Your task to perform on an android device: see creations saved in the google photos Image 0: 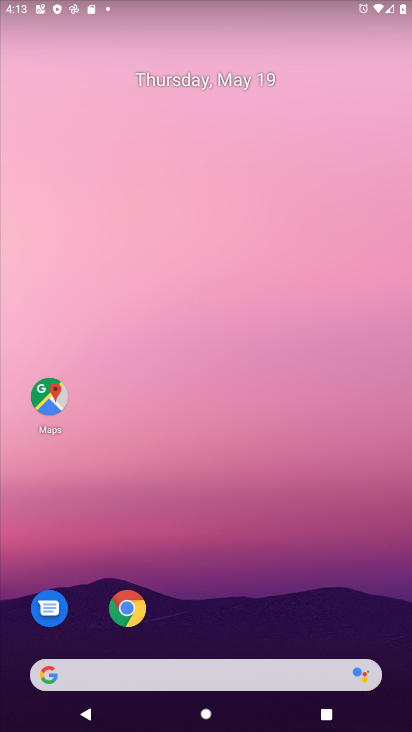
Step 0: drag from (238, 601) to (257, 95)
Your task to perform on an android device: see creations saved in the google photos Image 1: 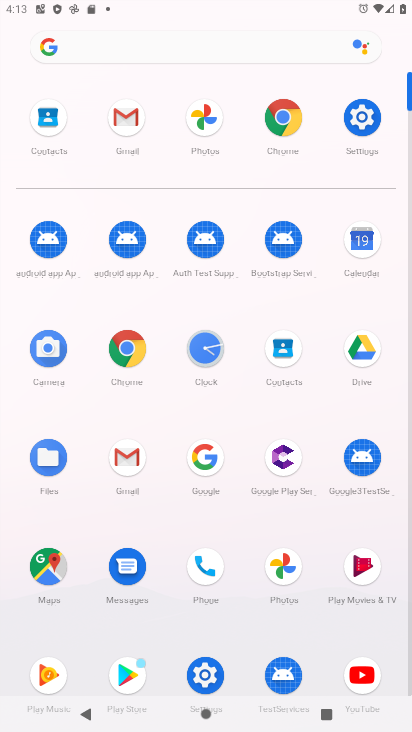
Step 1: click (210, 129)
Your task to perform on an android device: see creations saved in the google photos Image 2: 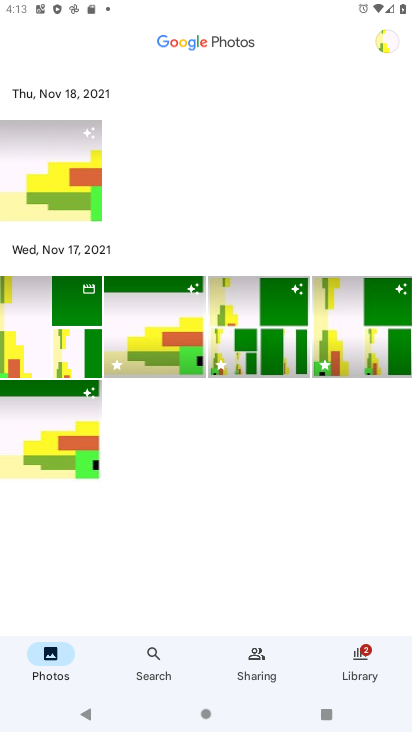
Step 2: click (371, 645)
Your task to perform on an android device: see creations saved in the google photos Image 3: 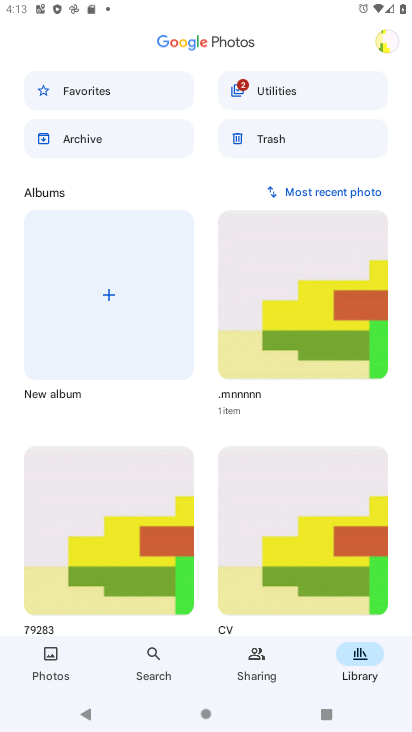
Step 3: click (105, 135)
Your task to perform on an android device: see creations saved in the google photos Image 4: 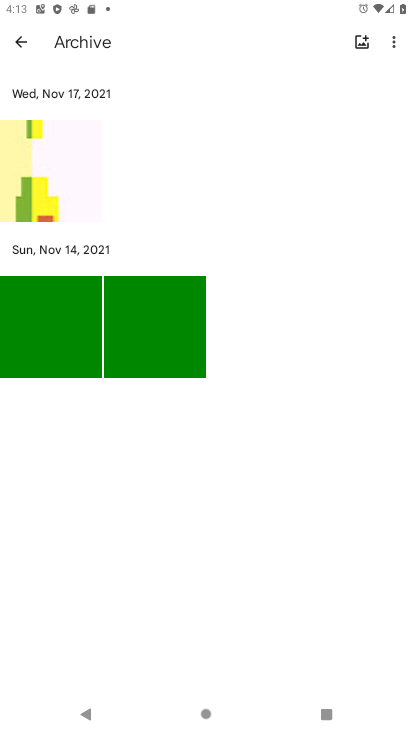
Step 4: task complete